Your task to perform on an android device: Set the phone to "Do not disturb". Image 0: 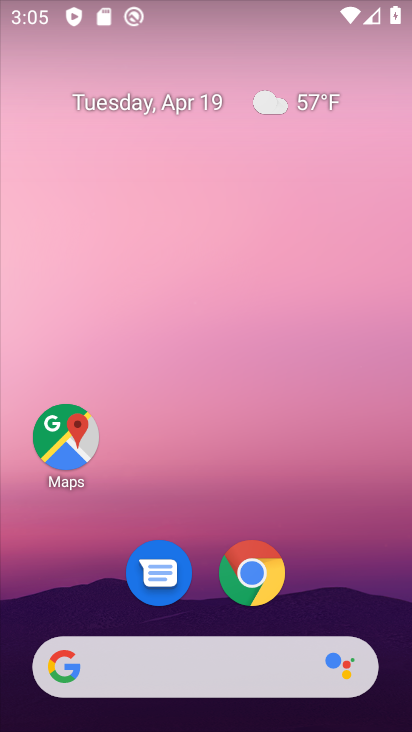
Step 0: drag from (341, 594) to (367, 3)
Your task to perform on an android device: Set the phone to "Do not disturb". Image 1: 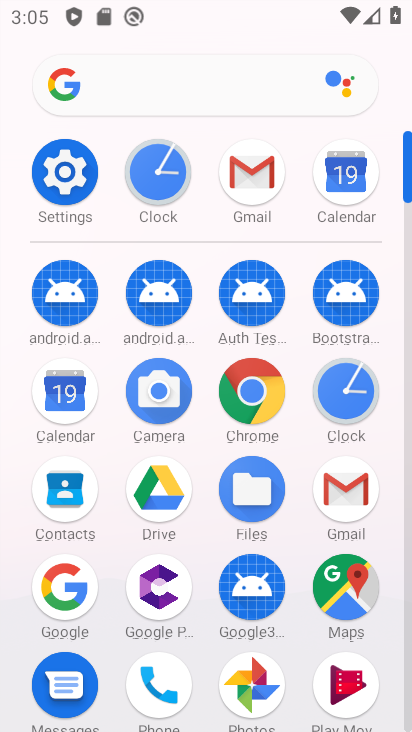
Step 1: click (70, 171)
Your task to perform on an android device: Set the phone to "Do not disturb". Image 2: 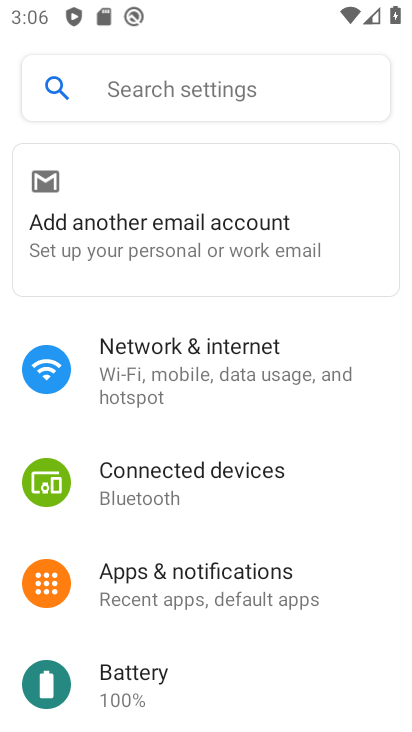
Step 2: drag from (309, 640) to (309, 293)
Your task to perform on an android device: Set the phone to "Do not disturb". Image 3: 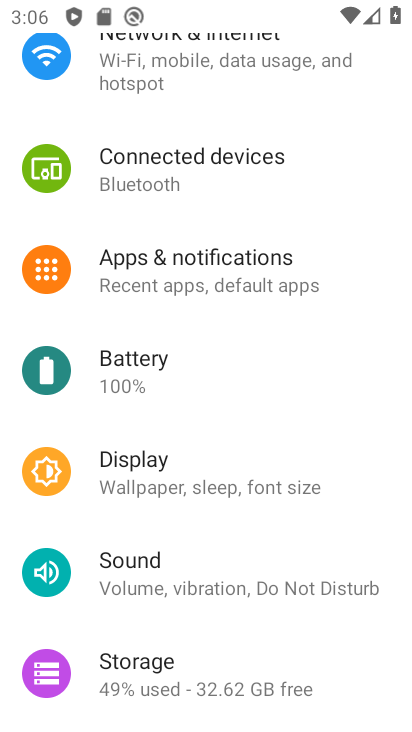
Step 3: click (146, 568)
Your task to perform on an android device: Set the phone to "Do not disturb". Image 4: 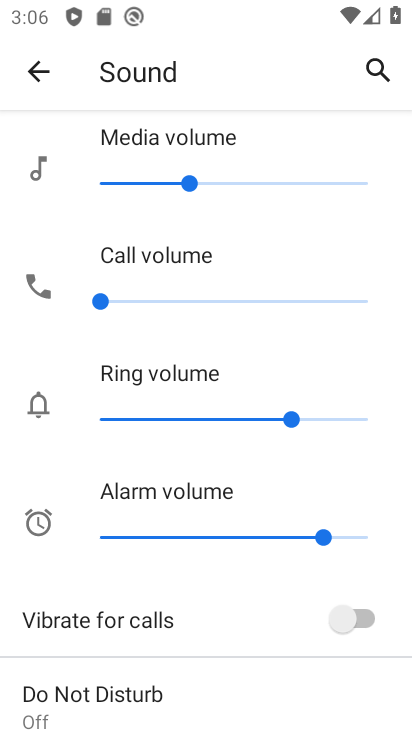
Step 4: drag from (211, 574) to (217, 298)
Your task to perform on an android device: Set the phone to "Do not disturb". Image 5: 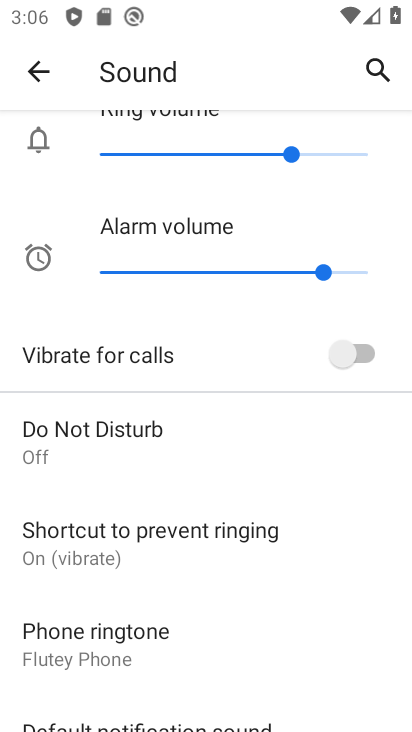
Step 5: click (46, 432)
Your task to perform on an android device: Set the phone to "Do not disturb". Image 6: 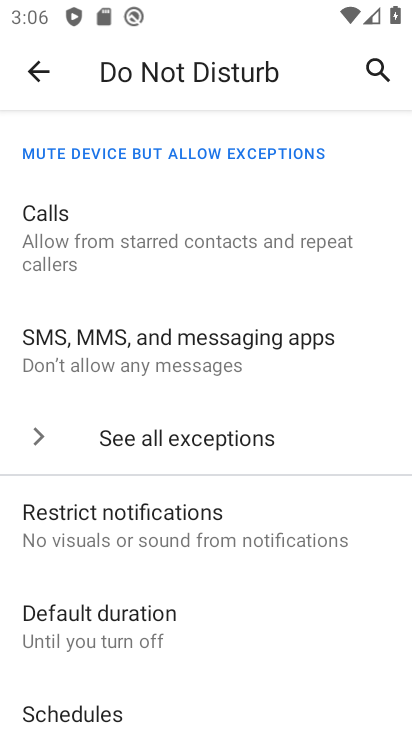
Step 6: drag from (237, 617) to (230, 162)
Your task to perform on an android device: Set the phone to "Do not disturb". Image 7: 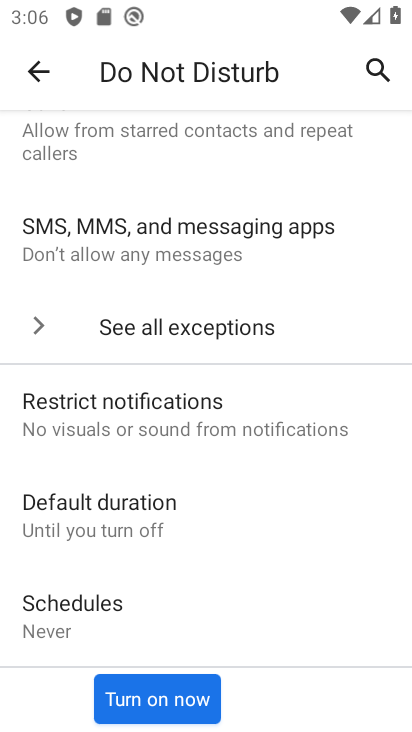
Step 7: click (181, 693)
Your task to perform on an android device: Set the phone to "Do not disturb". Image 8: 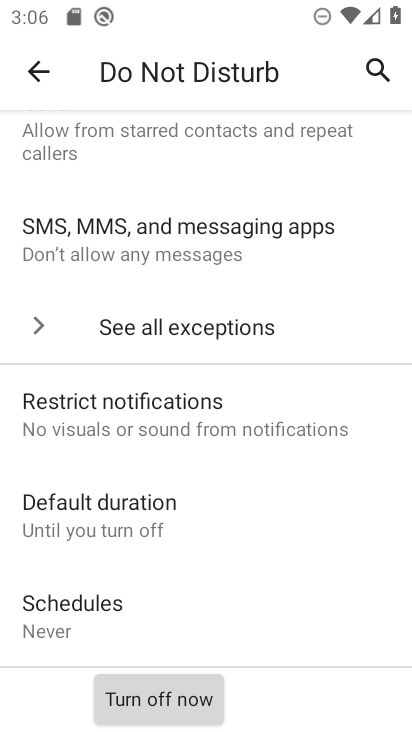
Step 8: task complete